Your task to perform on an android device: Add "macbook air" to the cart on amazon Image 0: 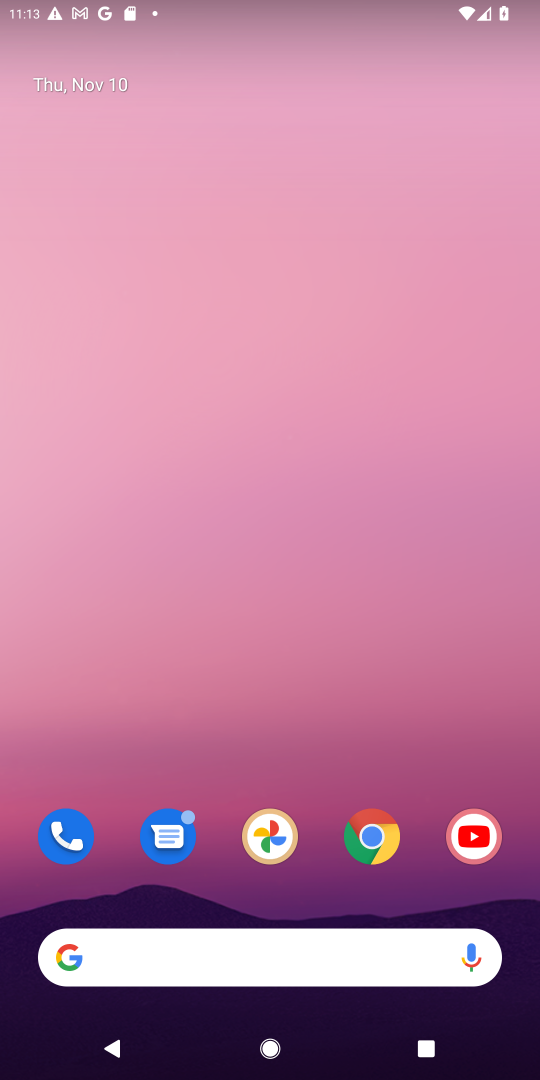
Step 0: click (256, 951)
Your task to perform on an android device: Add "macbook air" to the cart on amazon Image 1: 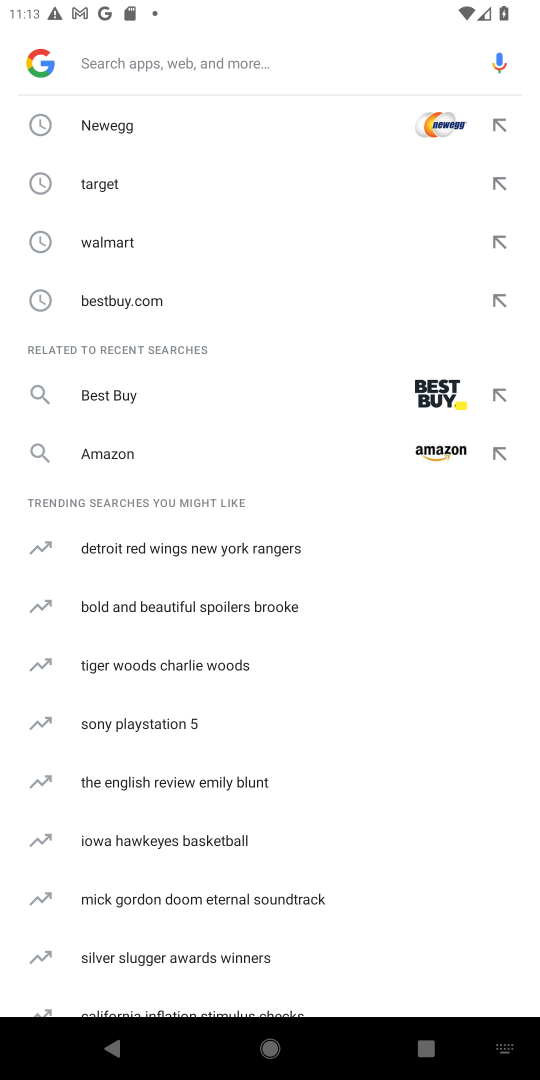
Step 1: click (214, 457)
Your task to perform on an android device: Add "macbook air" to the cart on amazon Image 2: 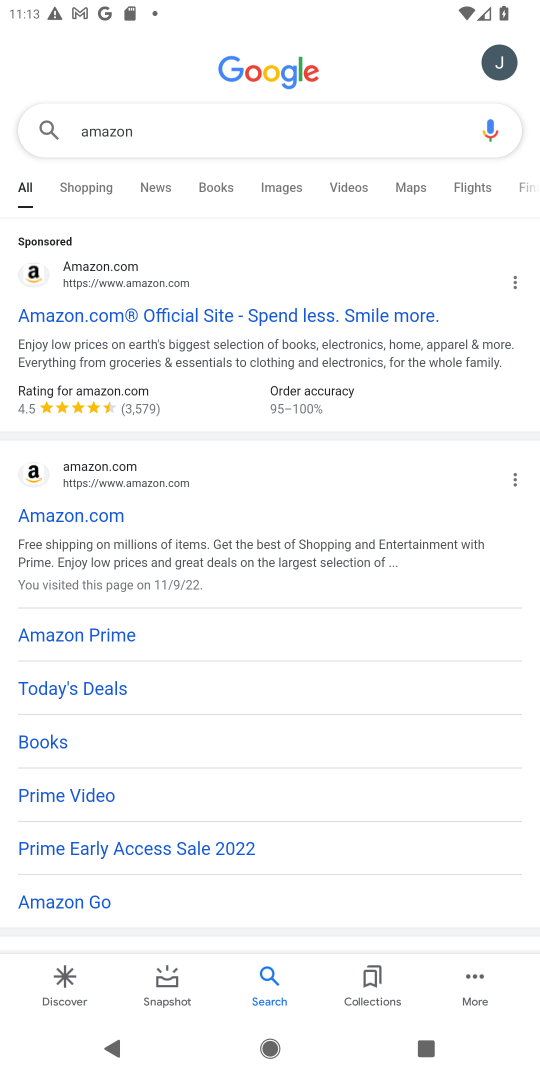
Step 2: click (118, 259)
Your task to perform on an android device: Add "macbook air" to the cart on amazon Image 3: 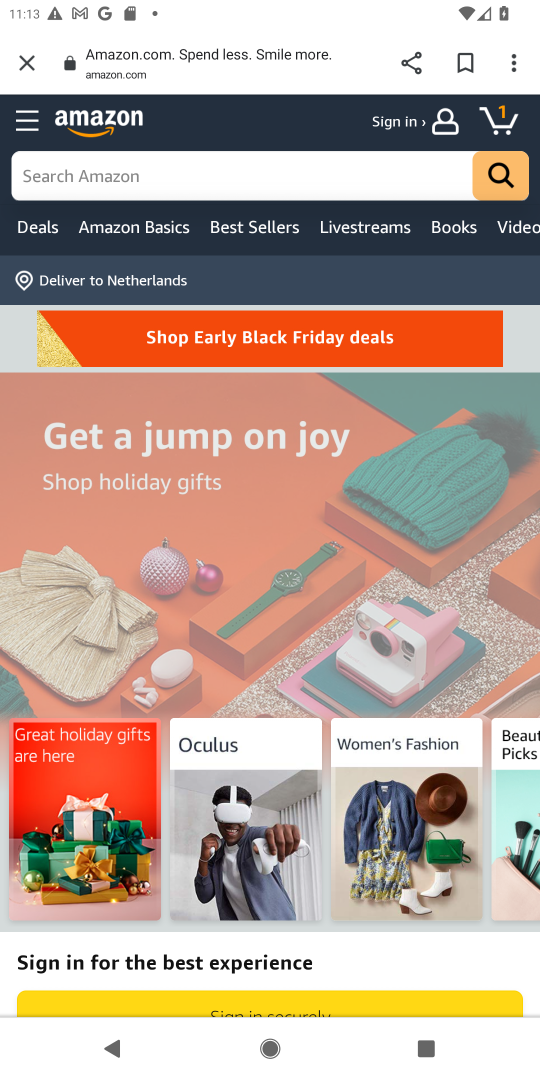
Step 3: click (182, 172)
Your task to perform on an android device: Add "macbook air" to the cart on amazon Image 4: 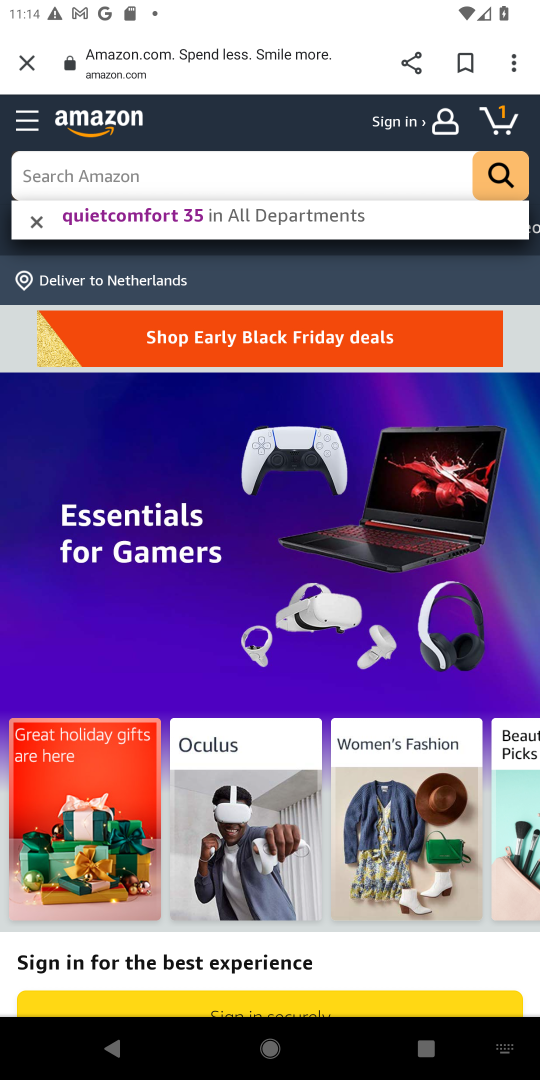
Step 4: type "macbook air"
Your task to perform on an android device: Add "macbook air" to the cart on amazon Image 5: 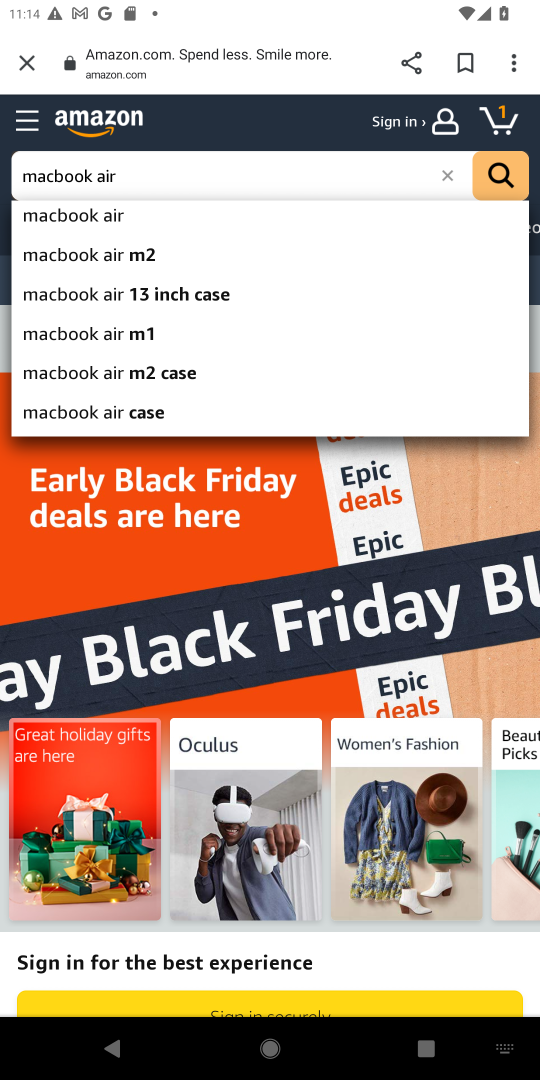
Step 5: click (104, 214)
Your task to perform on an android device: Add "macbook air" to the cart on amazon Image 6: 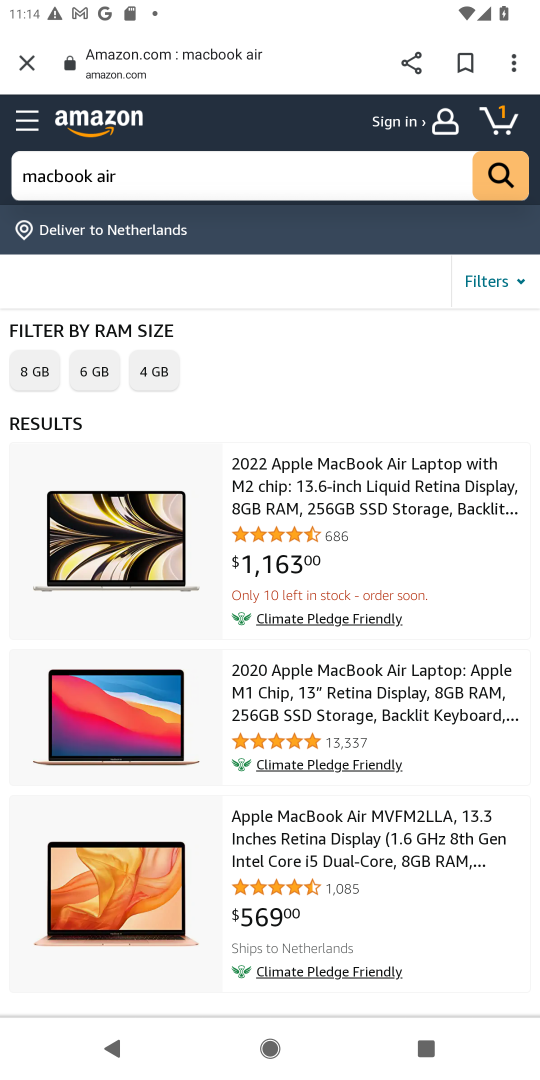
Step 6: click (181, 513)
Your task to perform on an android device: Add "macbook air" to the cart on amazon Image 7: 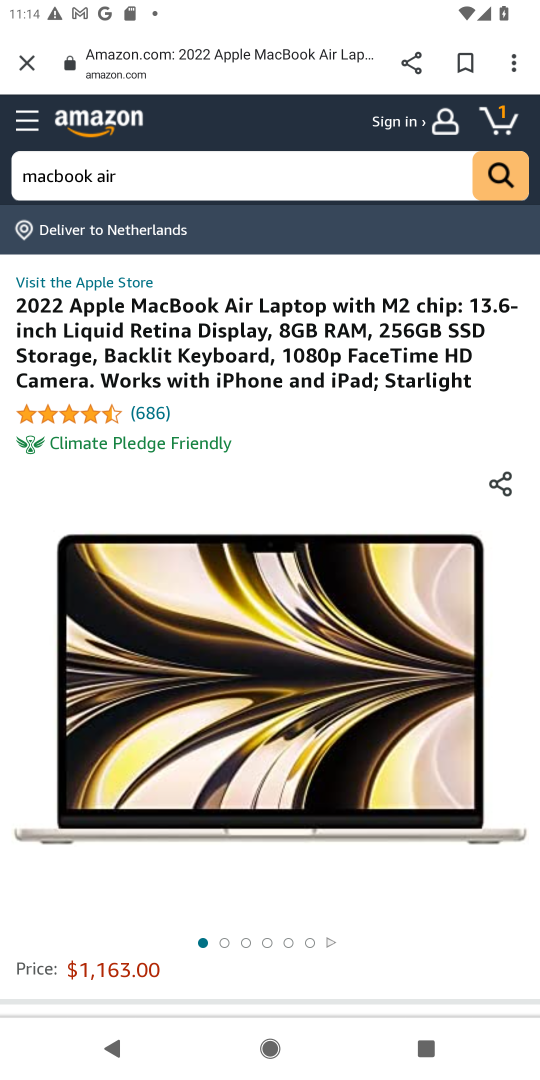
Step 7: task complete